Your task to perform on an android device: toggle translation in the chrome app Image 0: 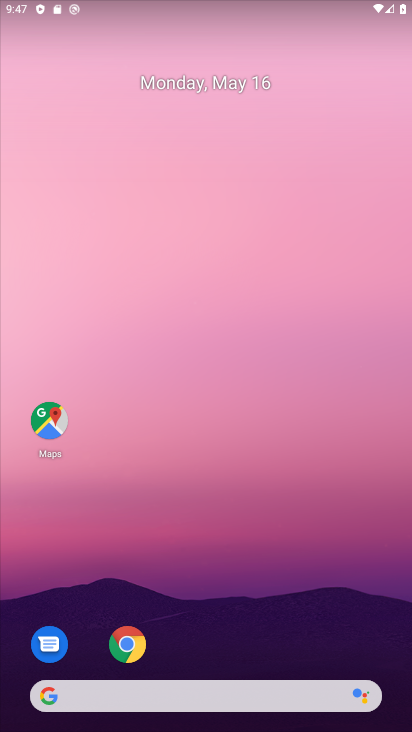
Step 0: click (134, 642)
Your task to perform on an android device: toggle translation in the chrome app Image 1: 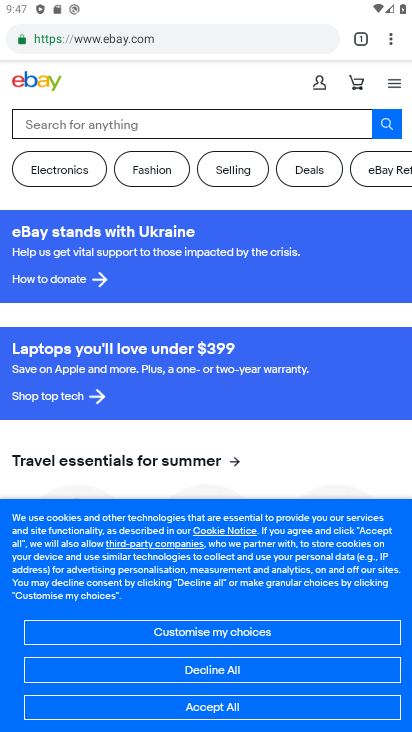
Step 1: click (396, 38)
Your task to perform on an android device: toggle translation in the chrome app Image 2: 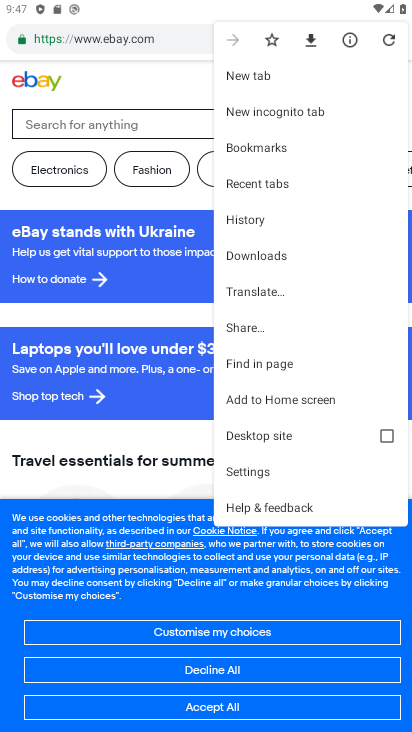
Step 2: click (246, 471)
Your task to perform on an android device: toggle translation in the chrome app Image 3: 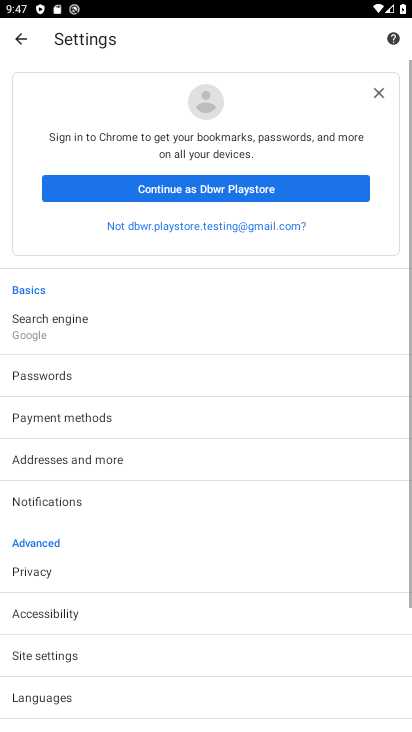
Step 3: drag from (46, 695) to (169, 388)
Your task to perform on an android device: toggle translation in the chrome app Image 4: 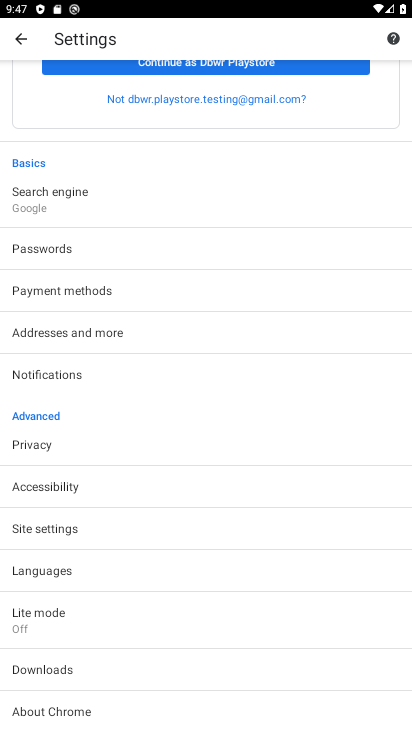
Step 4: click (44, 571)
Your task to perform on an android device: toggle translation in the chrome app Image 5: 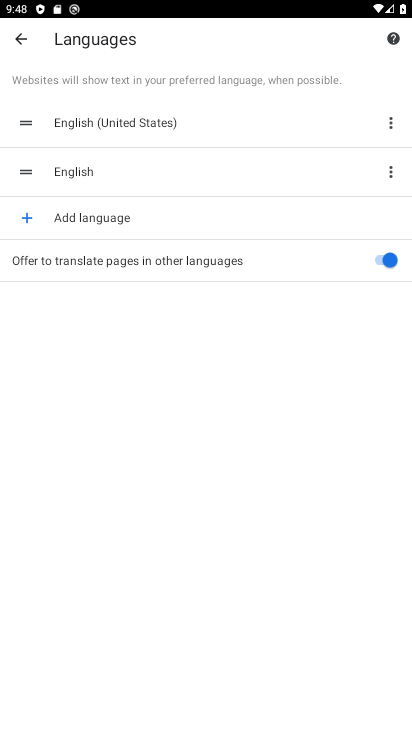
Step 5: click (397, 265)
Your task to perform on an android device: toggle translation in the chrome app Image 6: 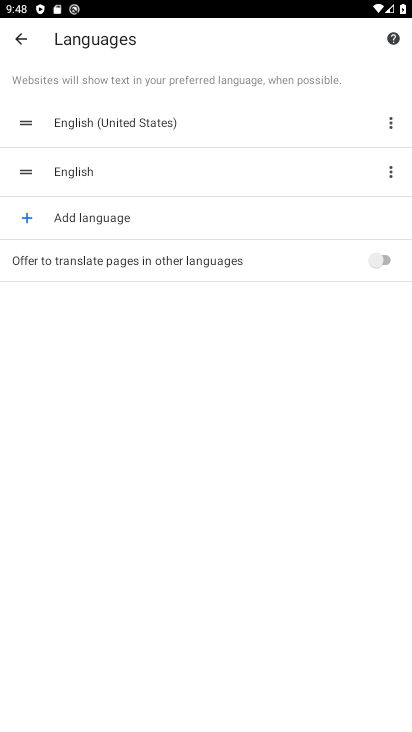
Step 6: task complete